Your task to perform on an android device: Do I have any events today? Image 0: 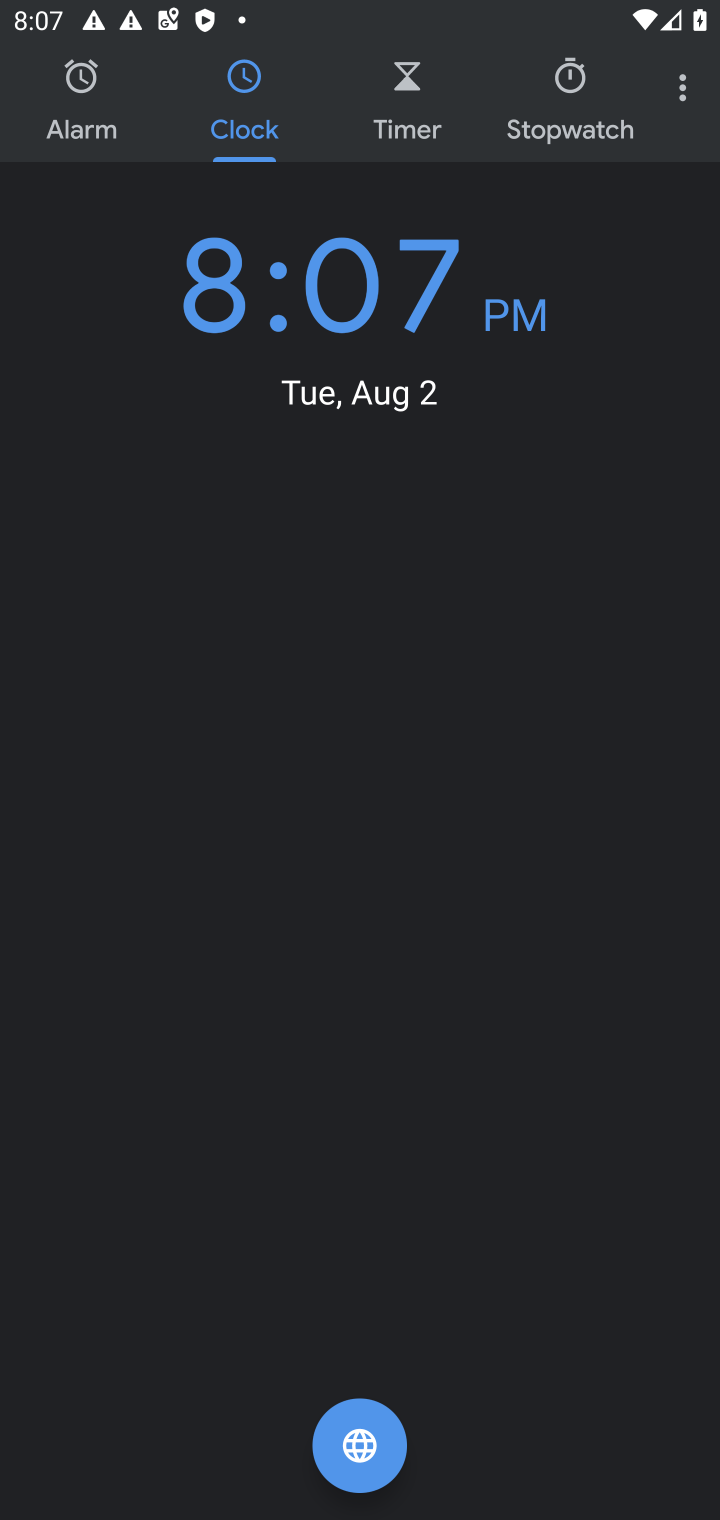
Step 0: press home button
Your task to perform on an android device: Do I have any events today? Image 1: 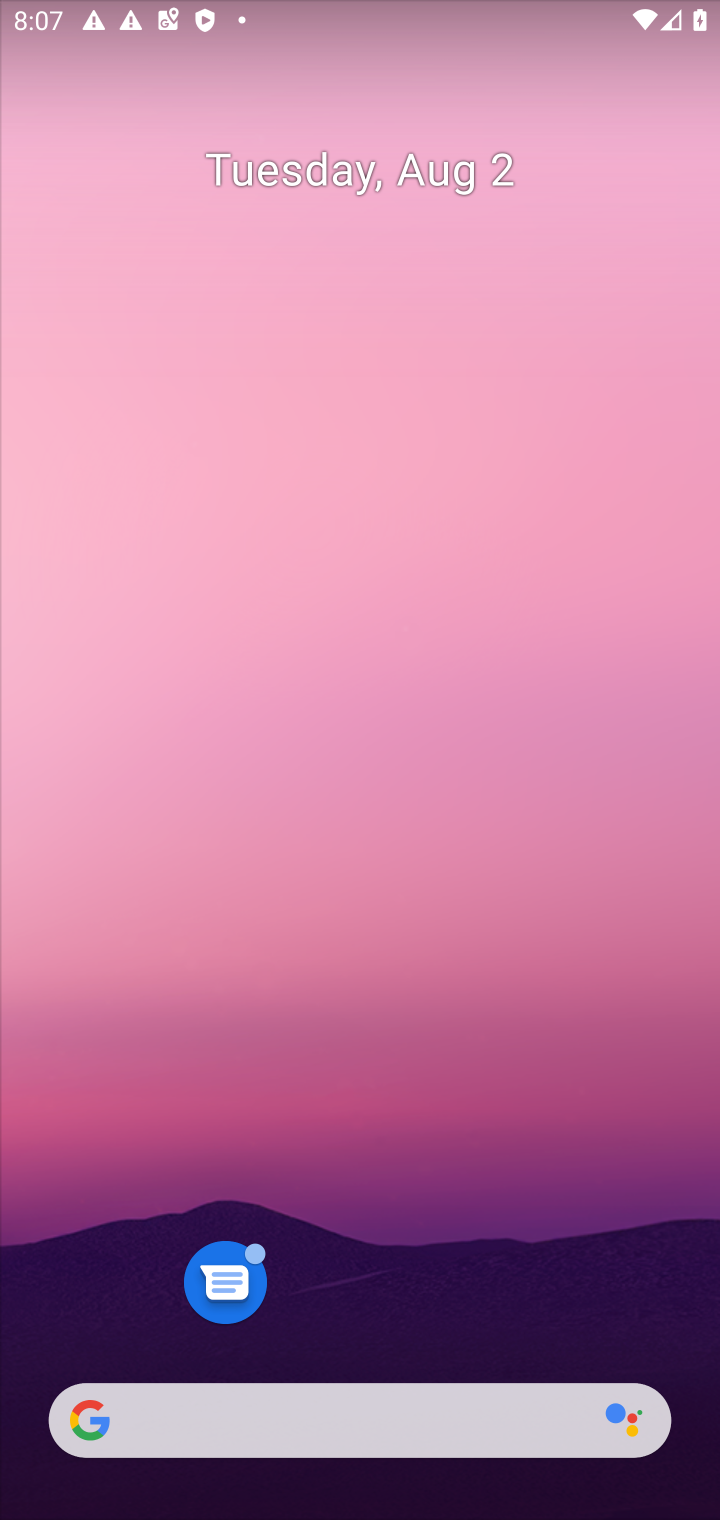
Step 1: drag from (456, 1337) to (304, 19)
Your task to perform on an android device: Do I have any events today? Image 2: 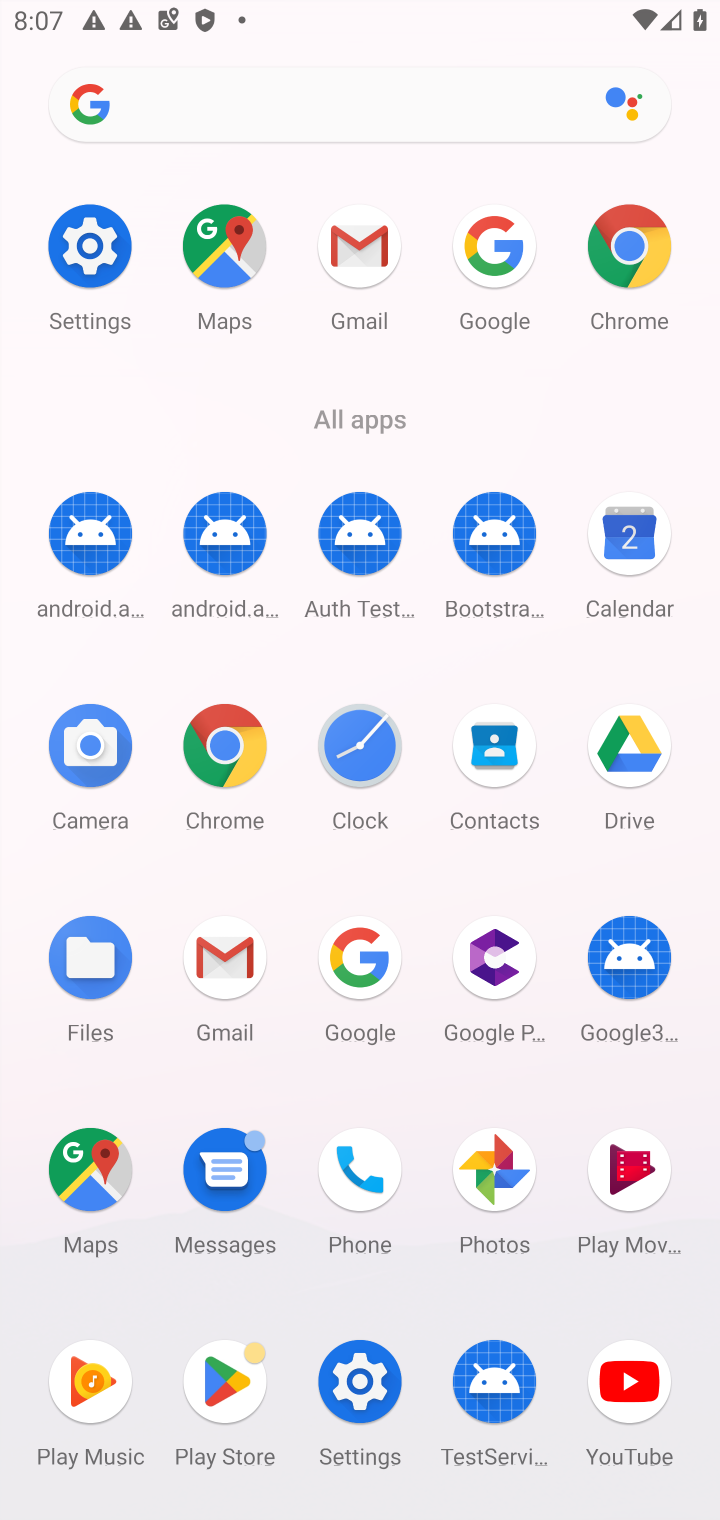
Step 2: click (592, 546)
Your task to perform on an android device: Do I have any events today? Image 3: 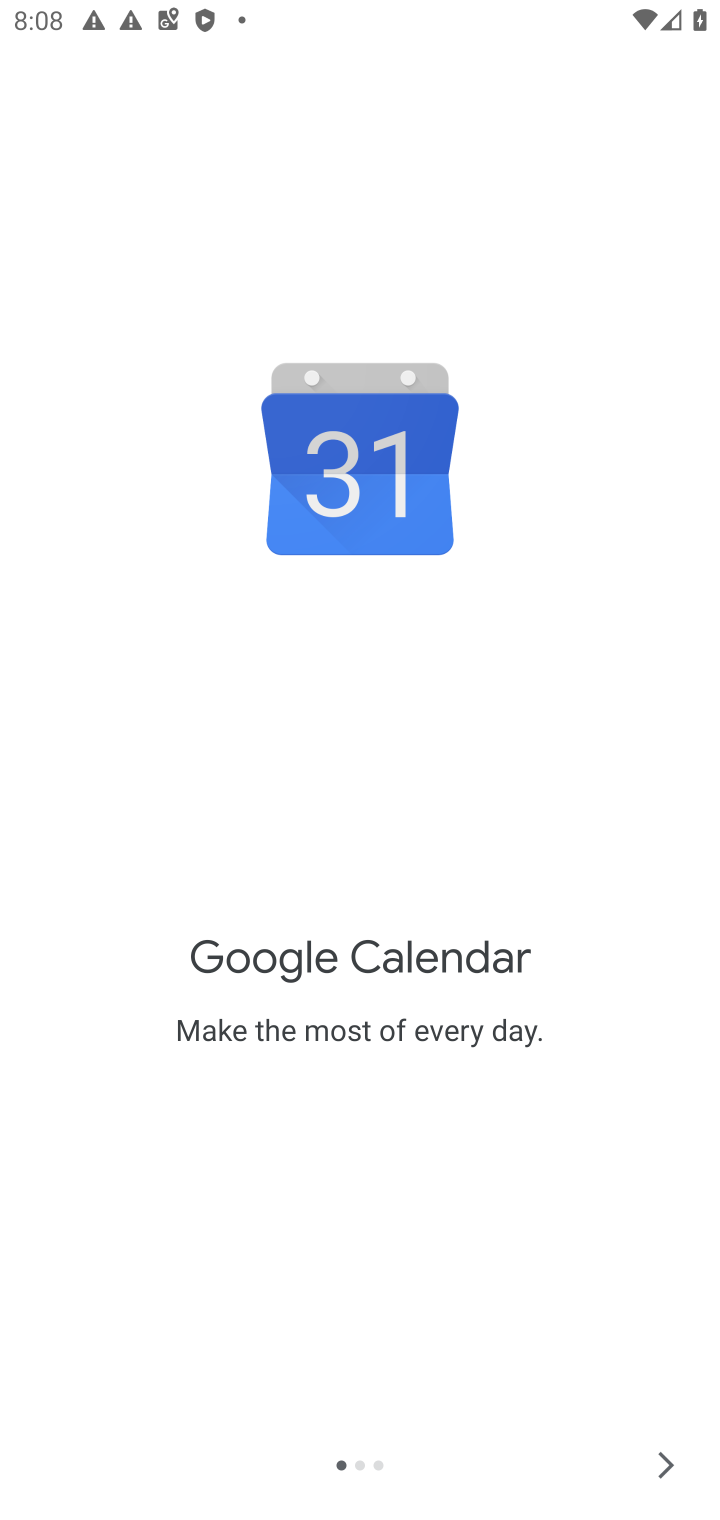
Step 3: click (673, 1478)
Your task to perform on an android device: Do I have any events today? Image 4: 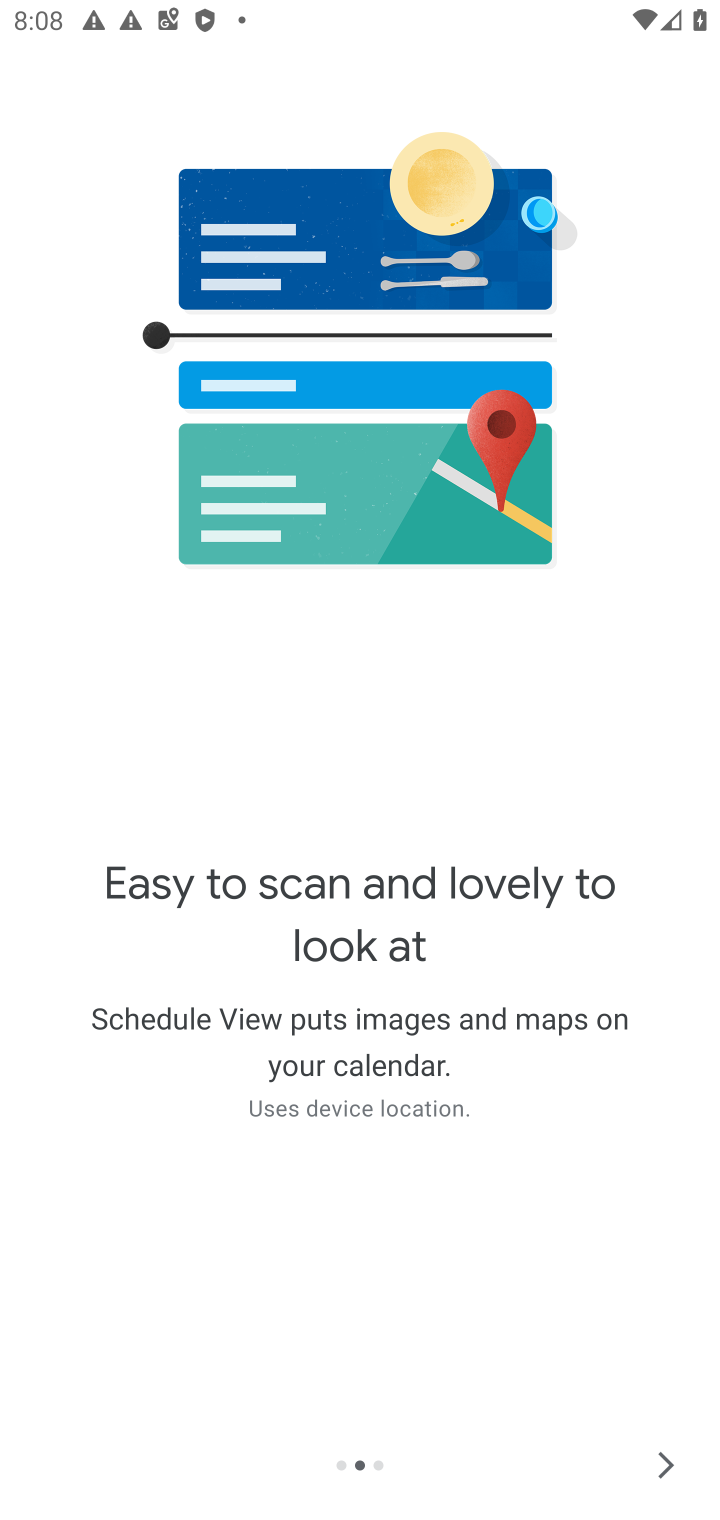
Step 4: click (673, 1466)
Your task to perform on an android device: Do I have any events today? Image 5: 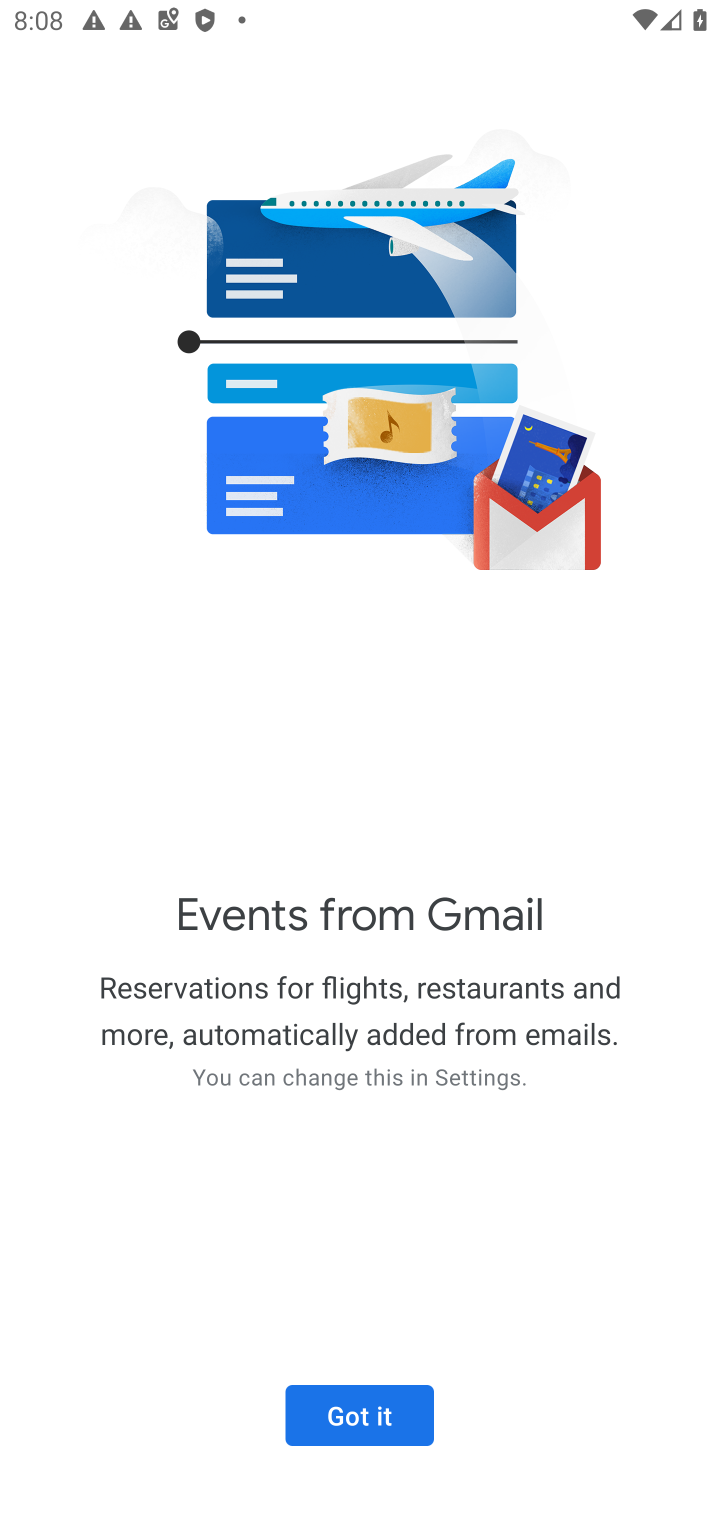
Step 5: click (389, 1422)
Your task to perform on an android device: Do I have any events today? Image 6: 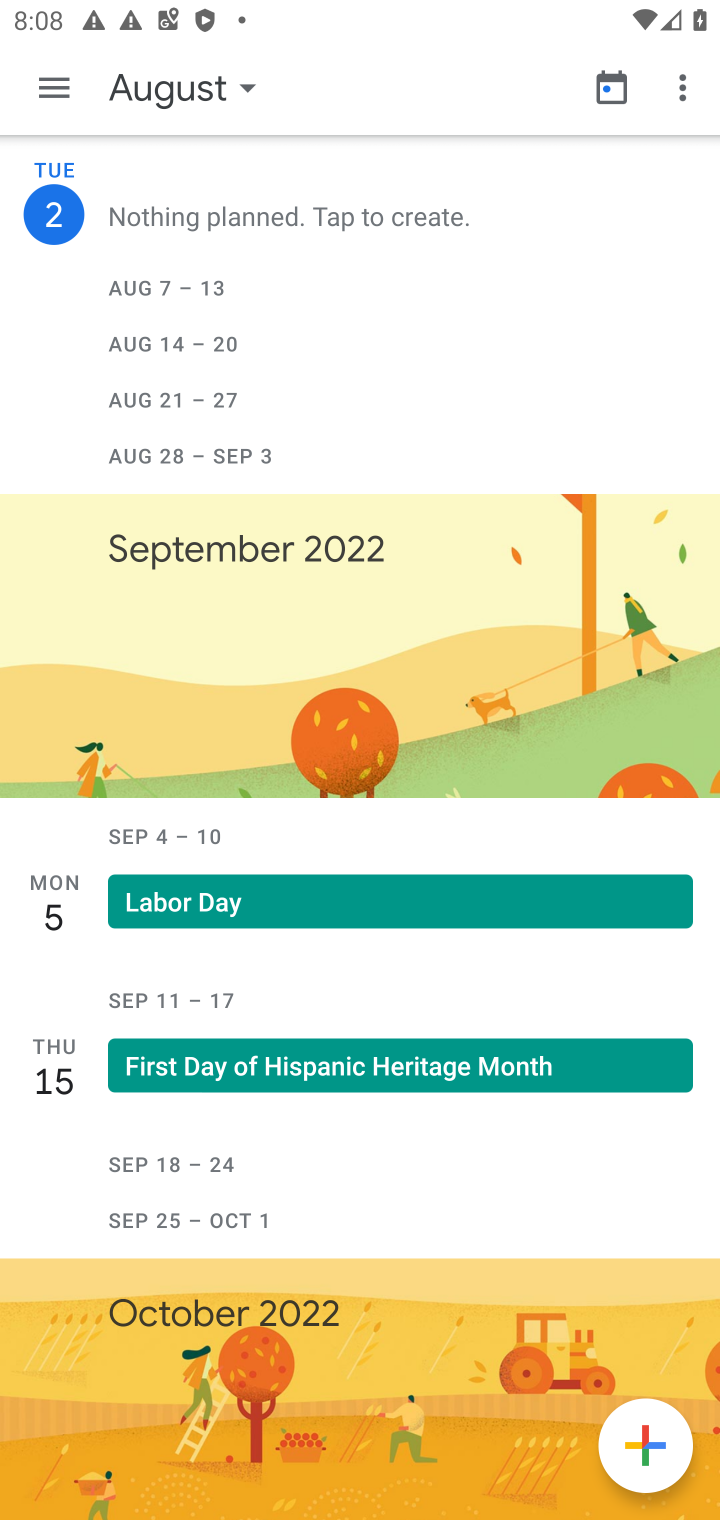
Step 6: click (64, 211)
Your task to perform on an android device: Do I have any events today? Image 7: 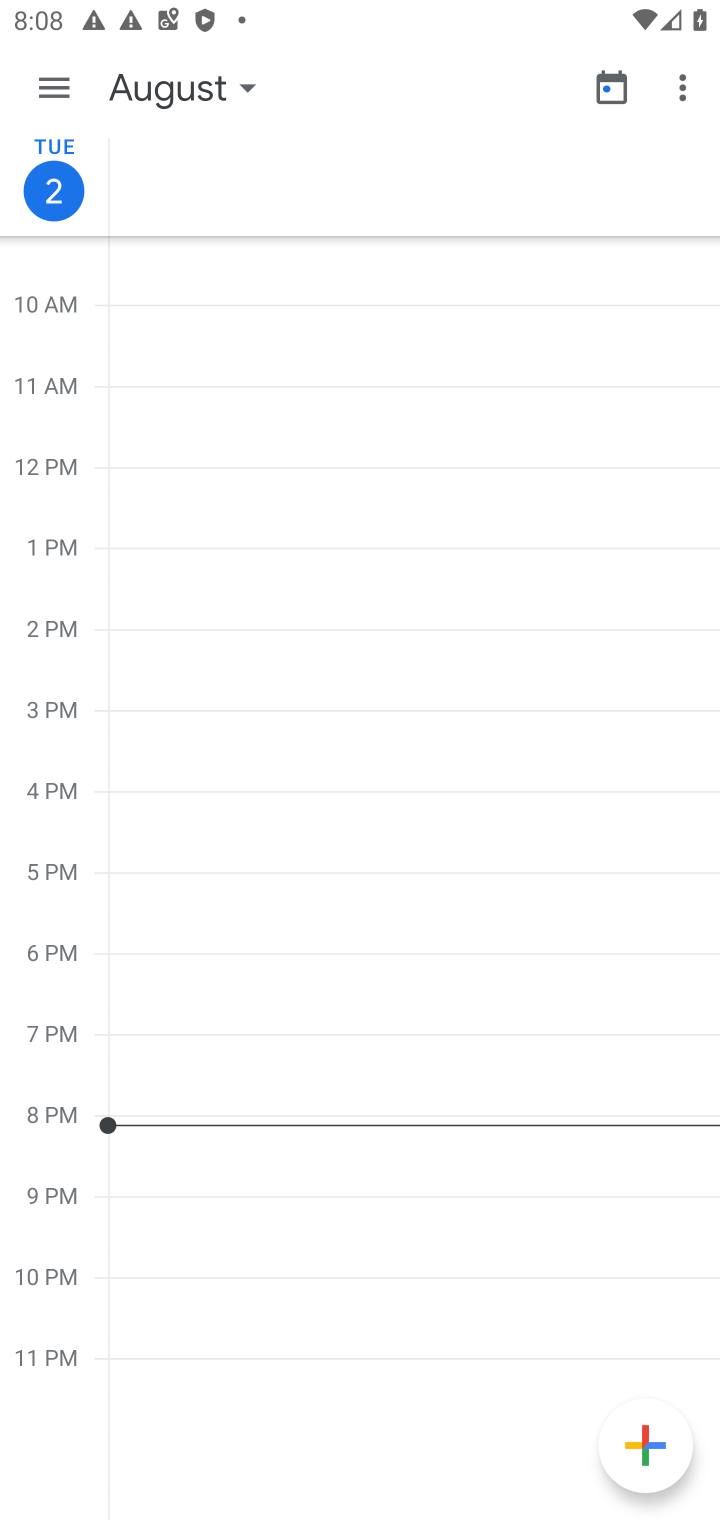
Step 7: task complete